Your task to perform on an android device: Open Yahoo.com Image 0: 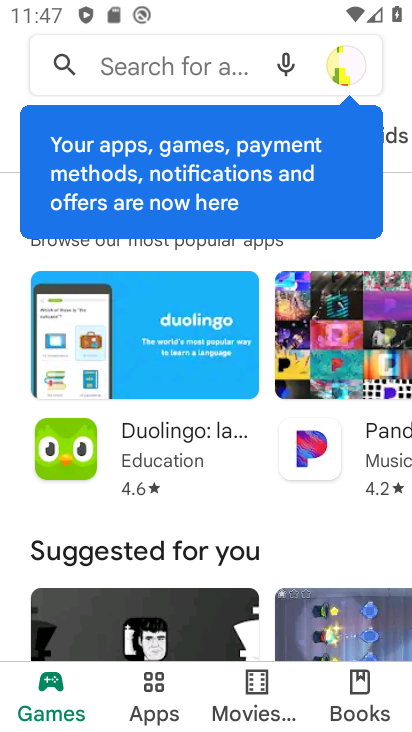
Step 0: press back button
Your task to perform on an android device: Open Yahoo.com Image 1: 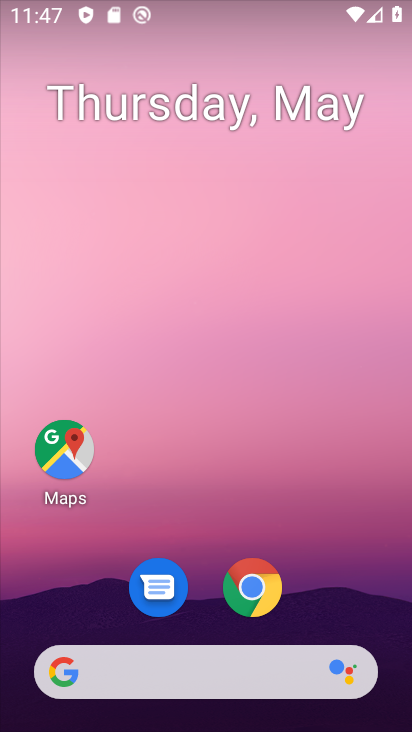
Step 1: click (250, 588)
Your task to perform on an android device: Open Yahoo.com Image 2: 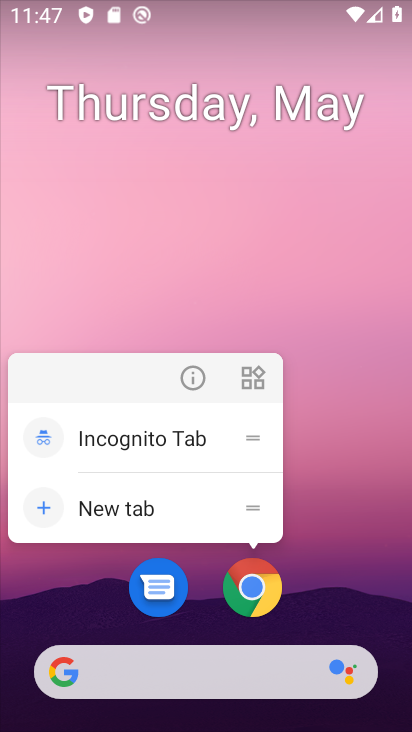
Step 2: click (281, 583)
Your task to perform on an android device: Open Yahoo.com Image 3: 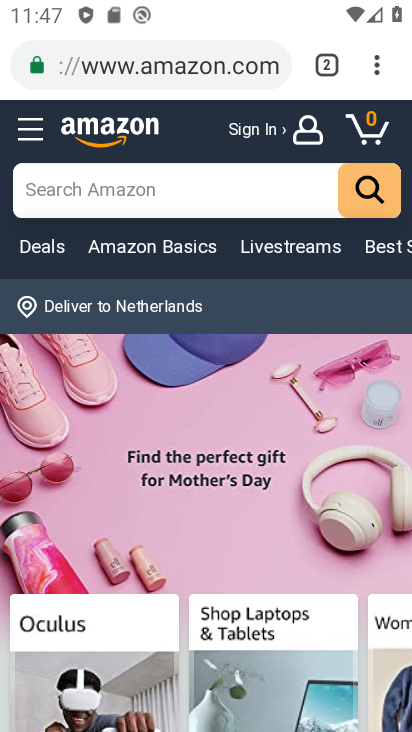
Step 3: click (323, 69)
Your task to perform on an android device: Open Yahoo.com Image 4: 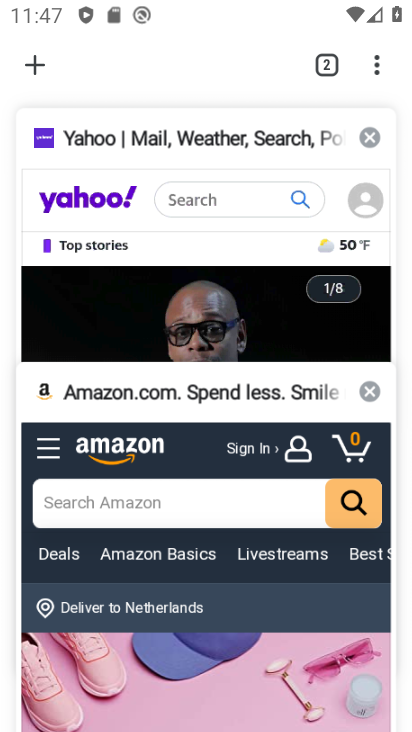
Step 4: click (86, 152)
Your task to perform on an android device: Open Yahoo.com Image 5: 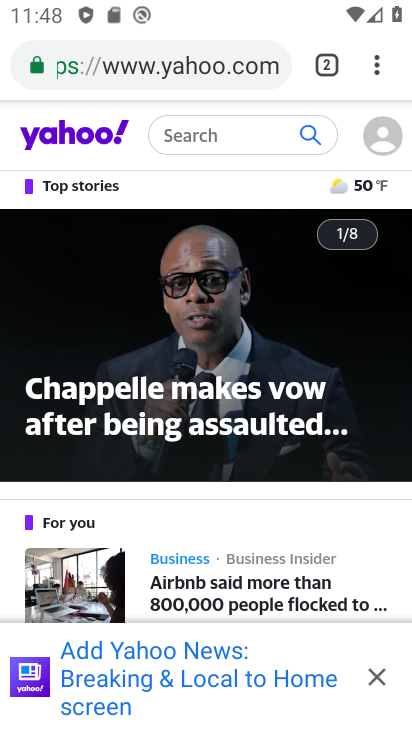
Step 5: task complete